Your task to perform on an android device: Open CNN.com Image 0: 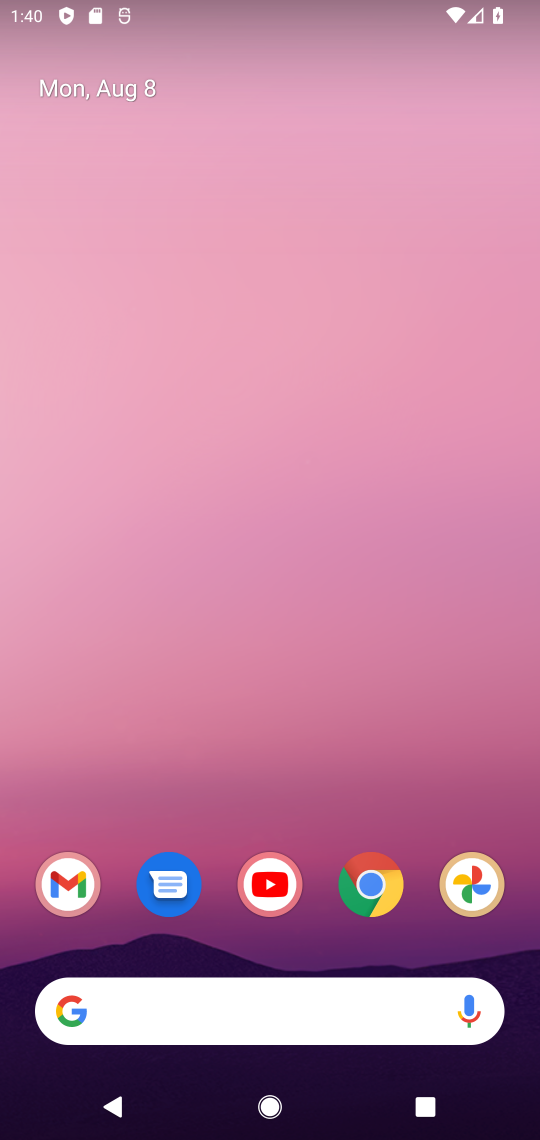
Step 0: click (373, 896)
Your task to perform on an android device: Open CNN.com Image 1: 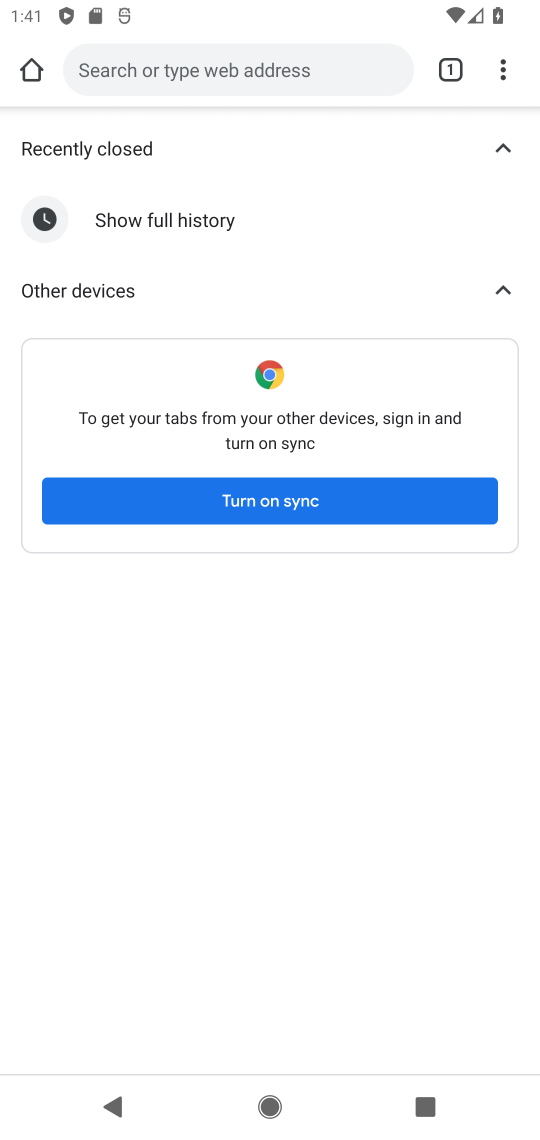
Step 1: click (501, 70)
Your task to perform on an android device: Open CNN.com Image 2: 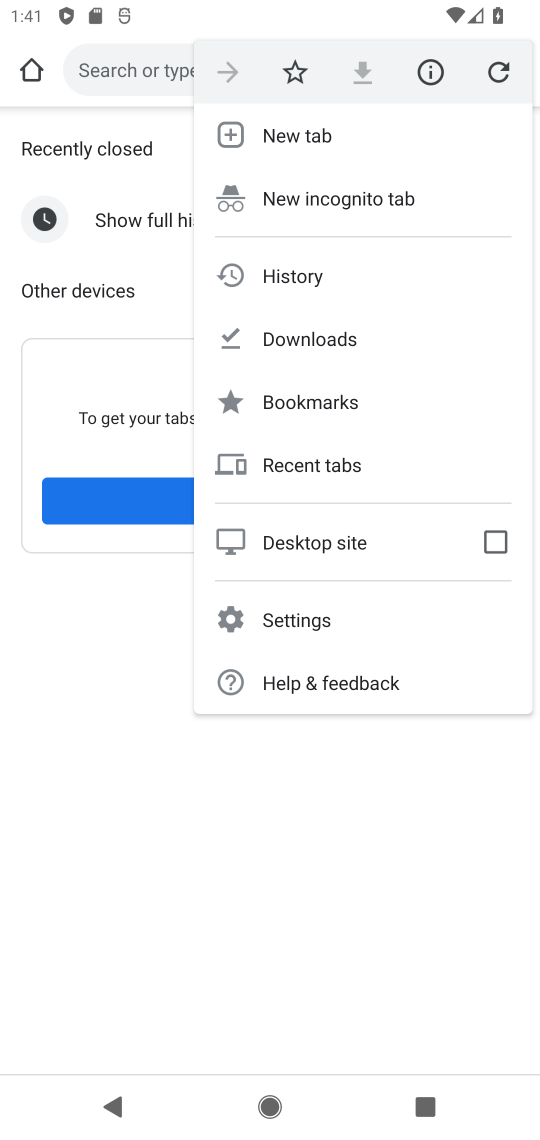
Step 2: click (295, 143)
Your task to perform on an android device: Open CNN.com Image 3: 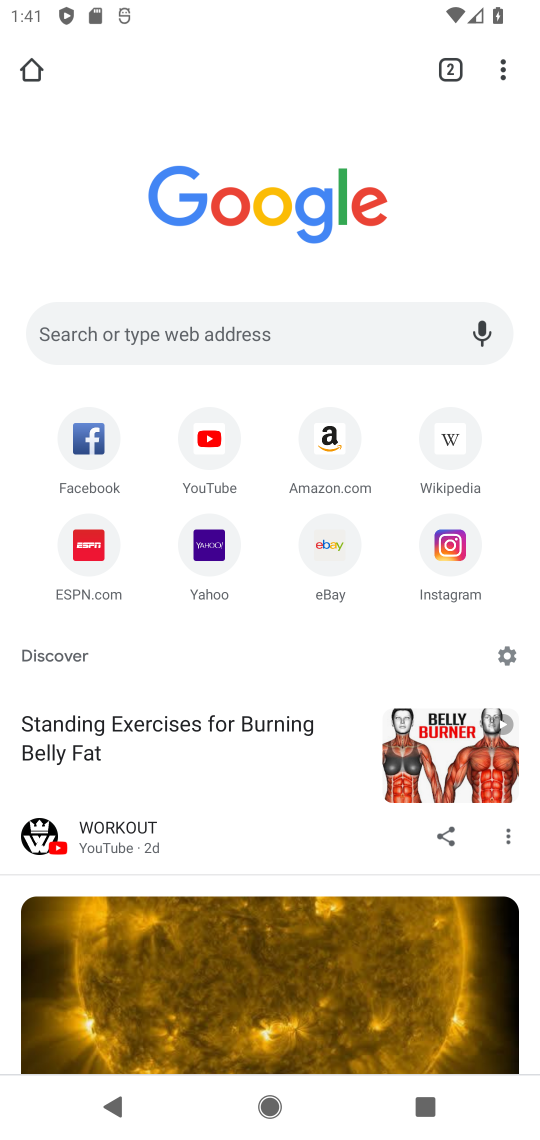
Step 3: click (226, 330)
Your task to perform on an android device: Open CNN.com Image 4: 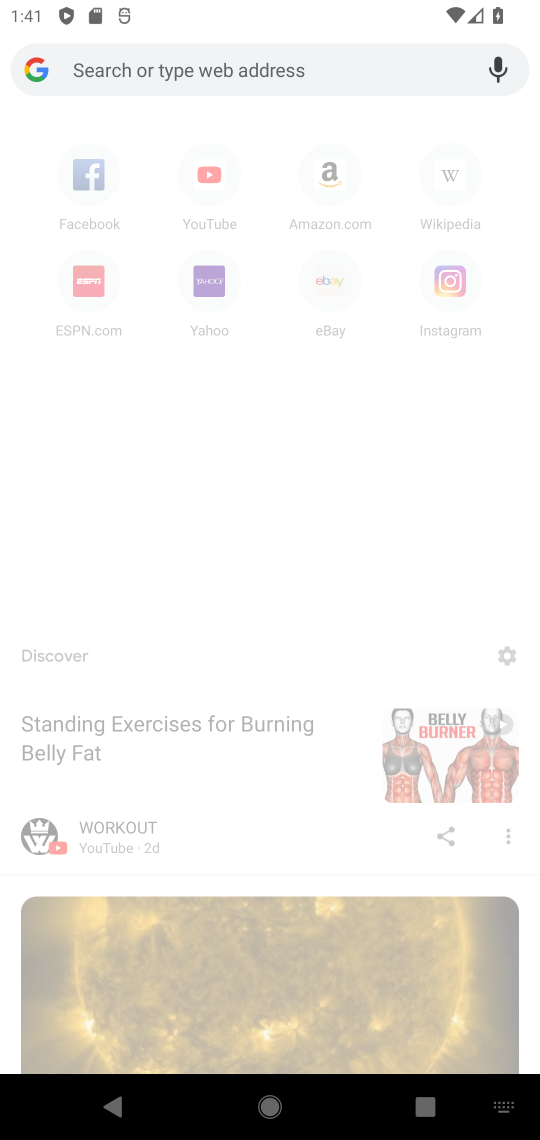
Step 4: type "cnn.com"
Your task to perform on an android device: Open CNN.com Image 5: 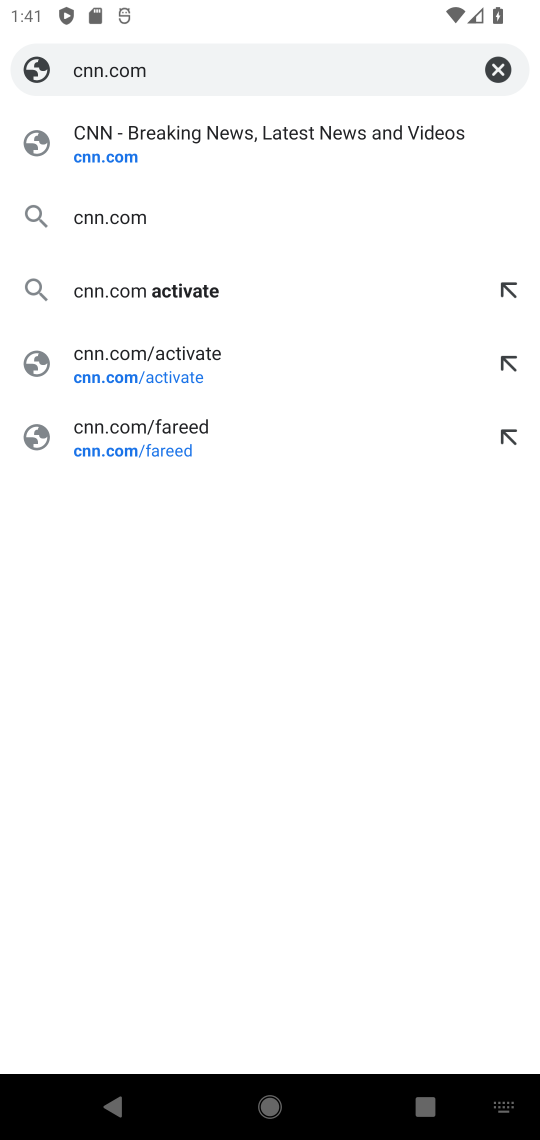
Step 5: click (163, 121)
Your task to perform on an android device: Open CNN.com Image 6: 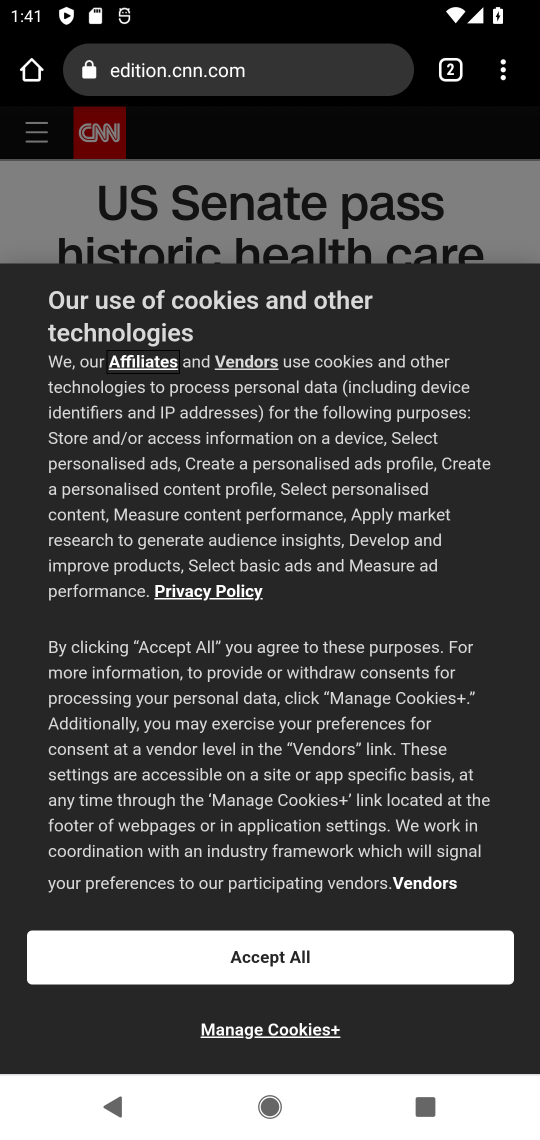
Step 6: click (350, 959)
Your task to perform on an android device: Open CNN.com Image 7: 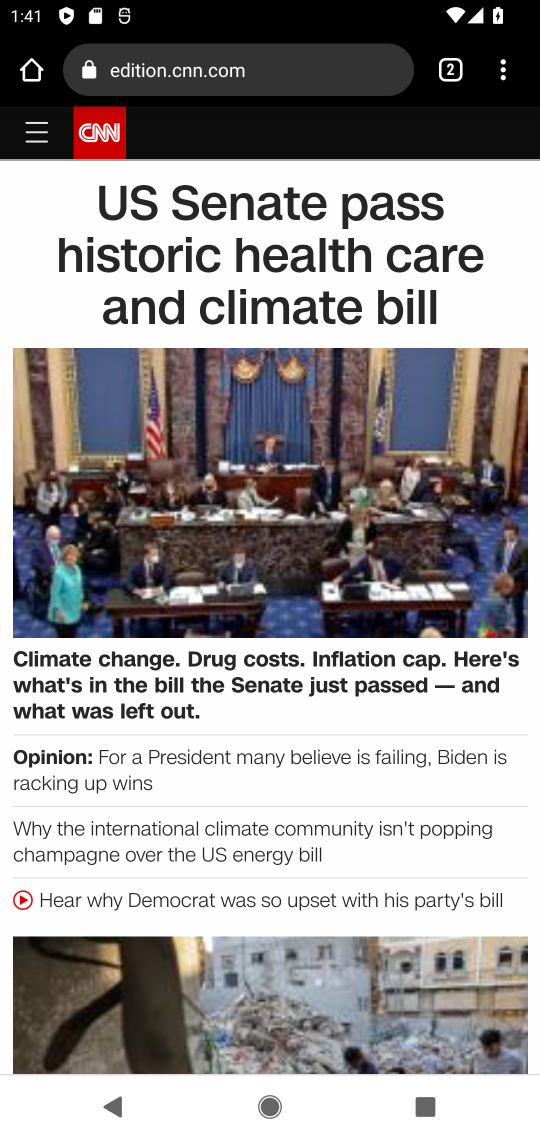
Step 7: task complete